Your task to perform on an android device: toggle sleep mode Image 0: 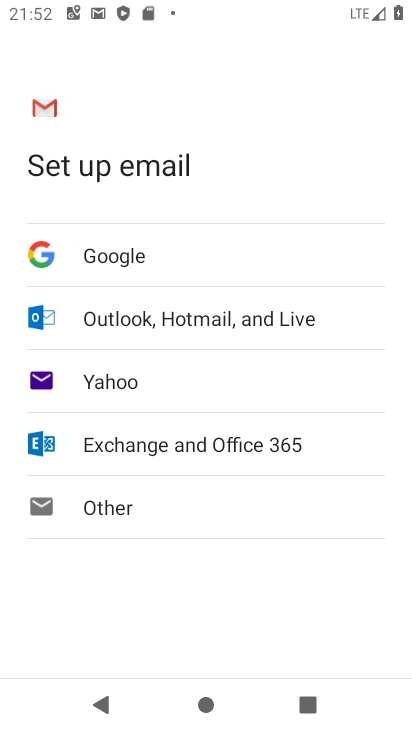
Step 0: press home button
Your task to perform on an android device: toggle sleep mode Image 1: 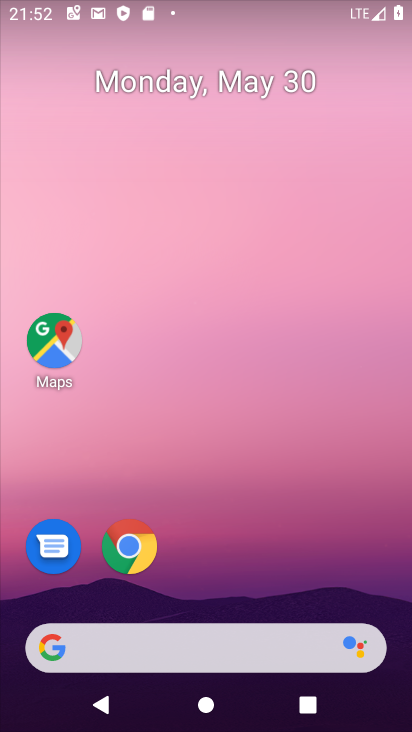
Step 1: drag from (315, 588) to (340, 138)
Your task to perform on an android device: toggle sleep mode Image 2: 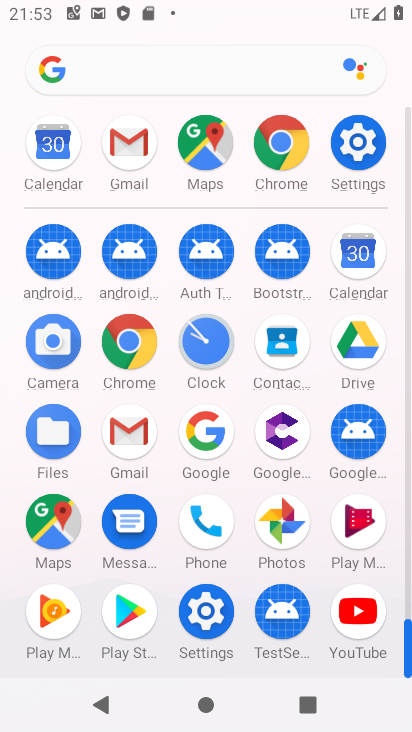
Step 2: click (301, 135)
Your task to perform on an android device: toggle sleep mode Image 3: 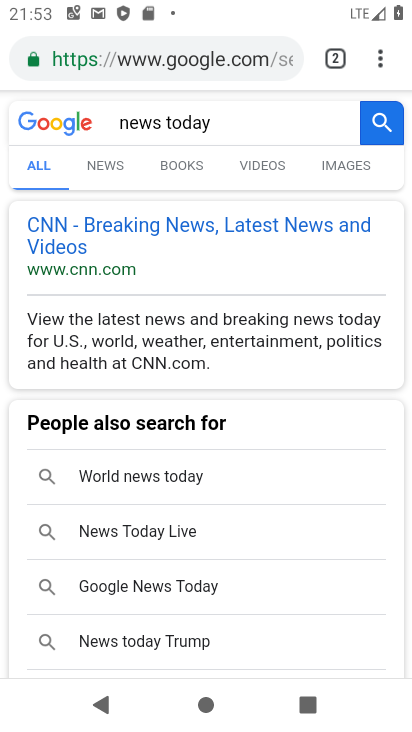
Step 3: click (269, 63)
Your task to perform on an android device: toggle sleep mode Image 4: 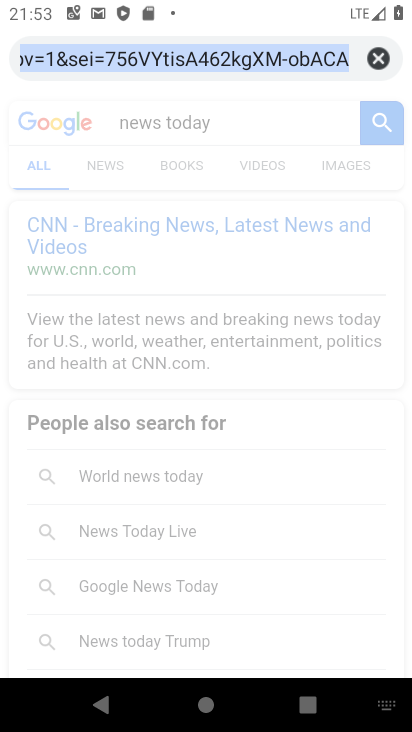
Step 4: click (386, 59)
Your task to perform on an android device: toggle sleep mode Image 5: 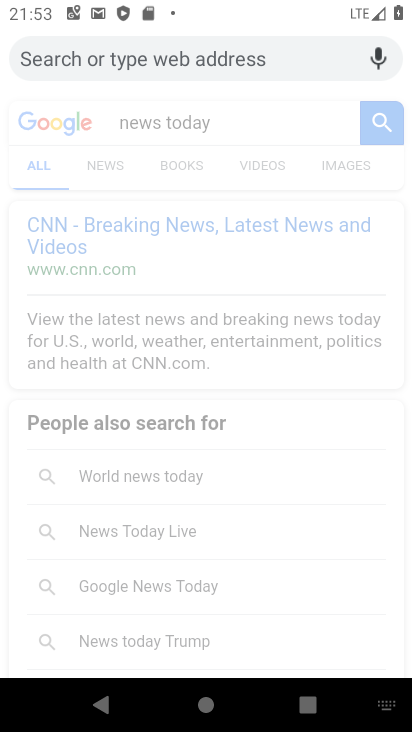
Step 5: type "sleep mode"
Your task to perform on an android device: toggle sleep mode Image 6: 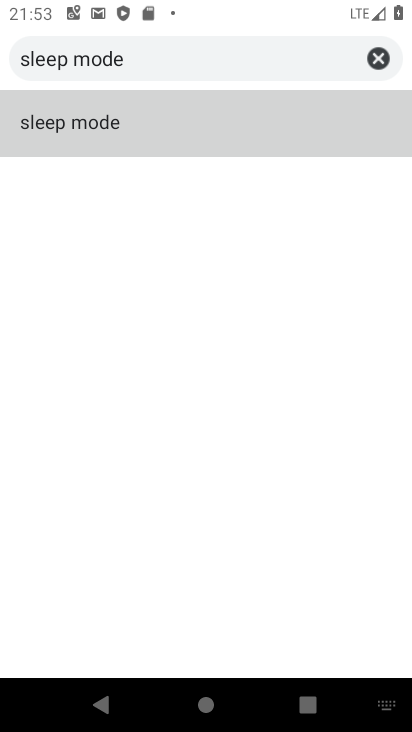
Step 6: click (181, 130)
Your task to perform on an android device: toggle sleep mode Image 7: 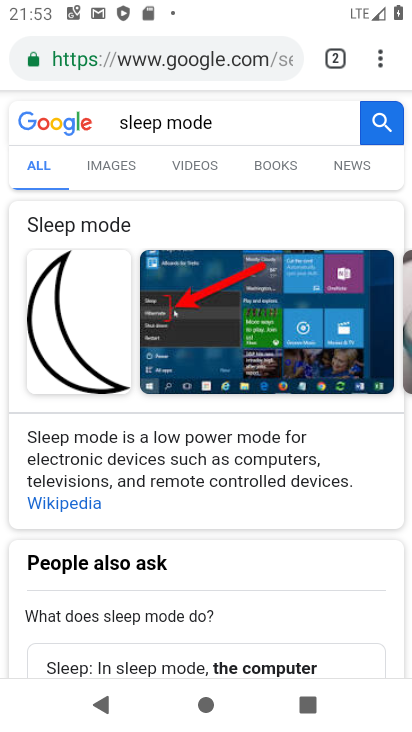
Step 7: task complete